Your task to perform on an android device: check android version Image 0: 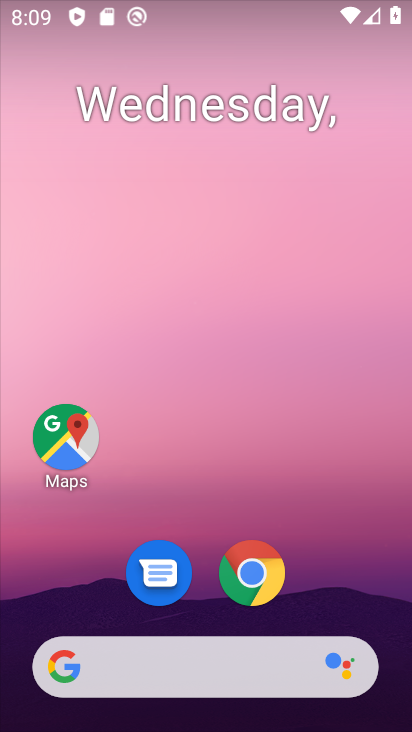
Step 0: drag from (258, 656) to (246, 174)
Your task to perform on an android device: check android version Image 1: 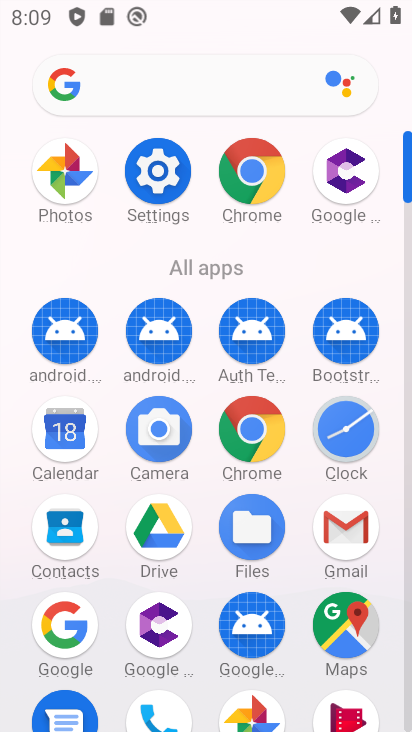
Step 1: click (158, 194)
Your task to perform on an android device: check android version Image 2: 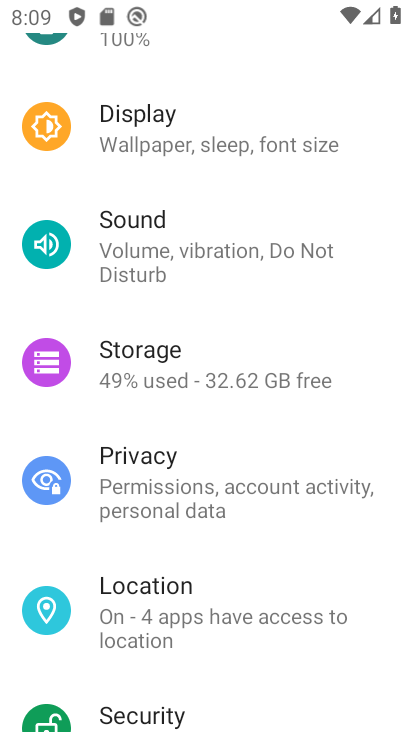
Step 2: drag from (183, 561) to (212, 286)
Your task to perform on an android device: check android version Image 3: 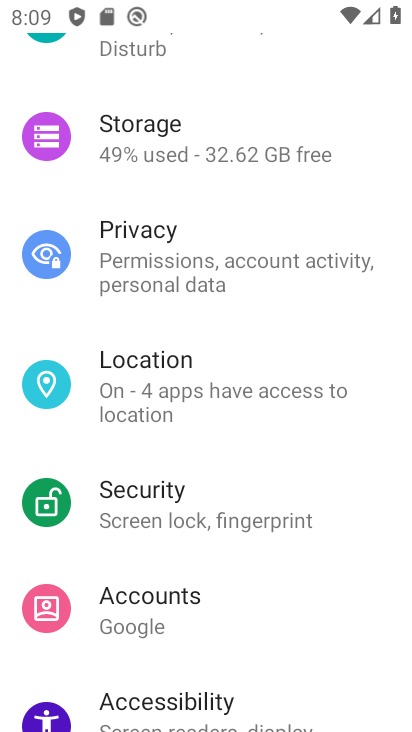
Step 3: drag from (201, 472) to (210, 149)
Your task to perform on an android device: check android version Image 4: 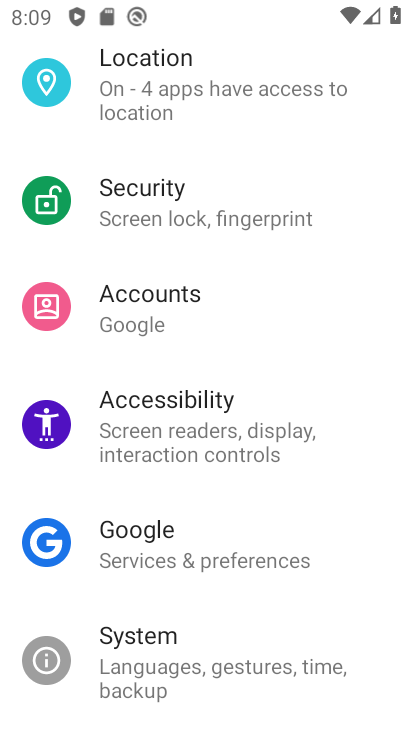
Step 4: drag from (207, 557) to (263, 18)
Your task to perform on an android device: check android version Image 5: 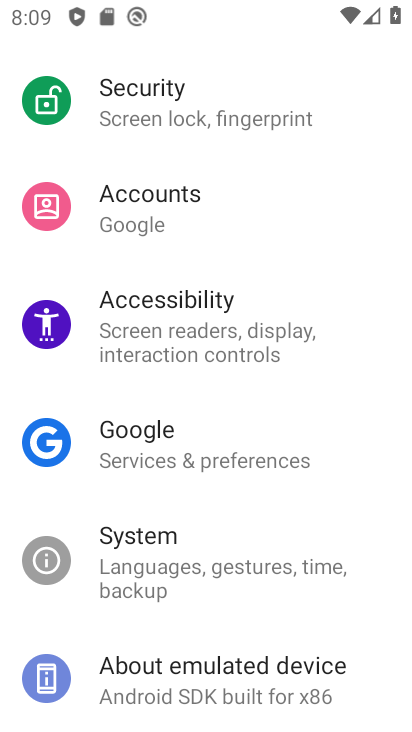
Step 5: click (195, 685)
Your task to perform on an android device: check android version Image 6: 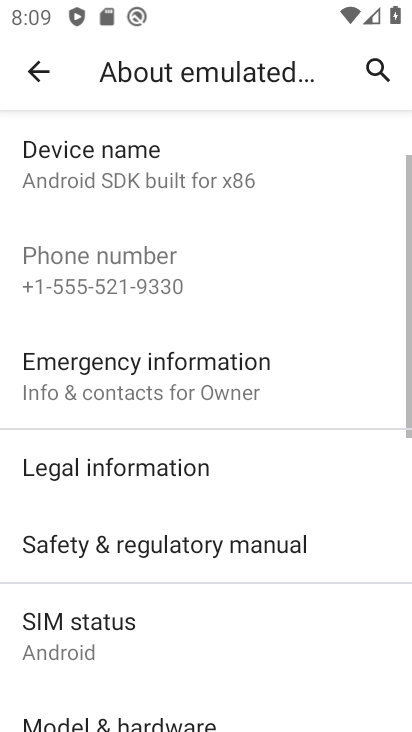
Step 6: drag from (201, 670) to (234, 337)
Your task to perform on an android device: check android version Image 7: 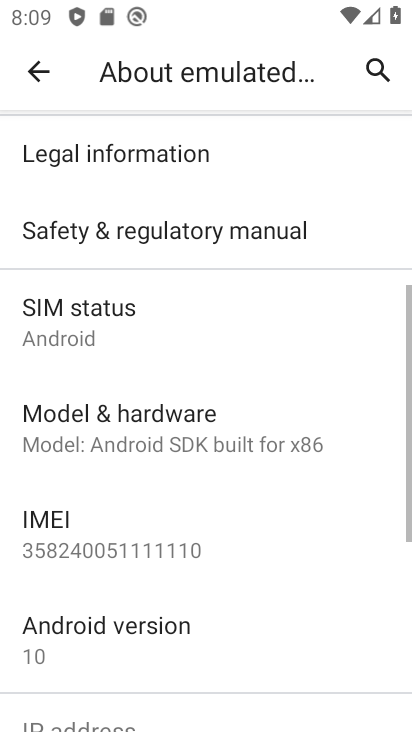
Step 7: click (194, 626)
Your task to perform on an android device: check android version Image 8: 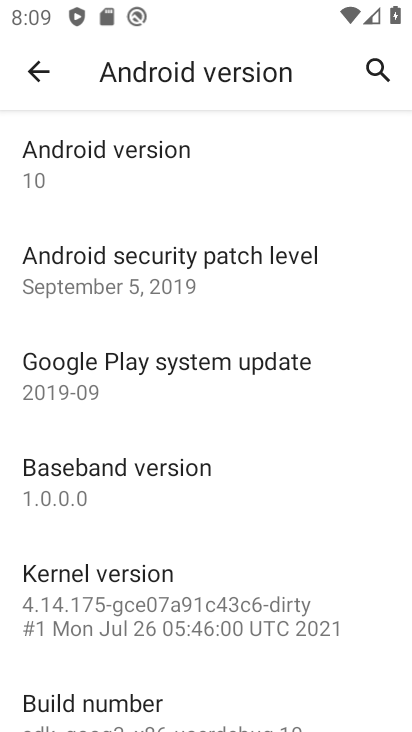
Step 8: task complete